Your task to perform on an android device: Open calendar and show me the fourth week of next month Image 0: 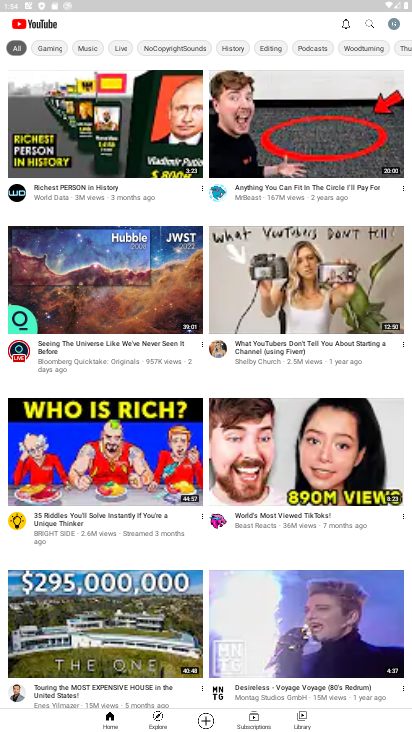
Step 0: press home button
Your task to perform on an android device: Open calendar and show me the fourth week of next month Image 1: 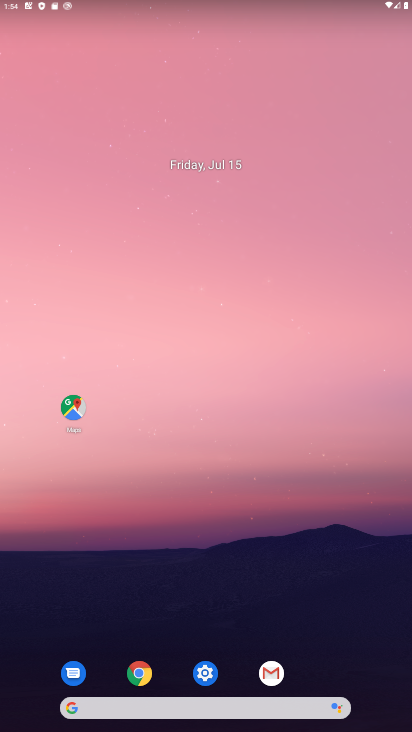
Step 1: drag from (202, 714) to (87, 277)
Your task to perform on an android device: Open calendar and show me the fourth week of next month Image 2: 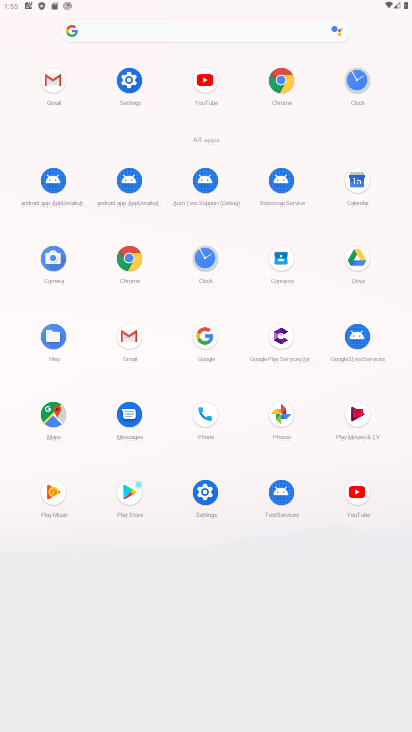
Step 2: click (362, 186)
Your task to perform on an android device: Open calendar and show me the fourth week of next month Image 3: 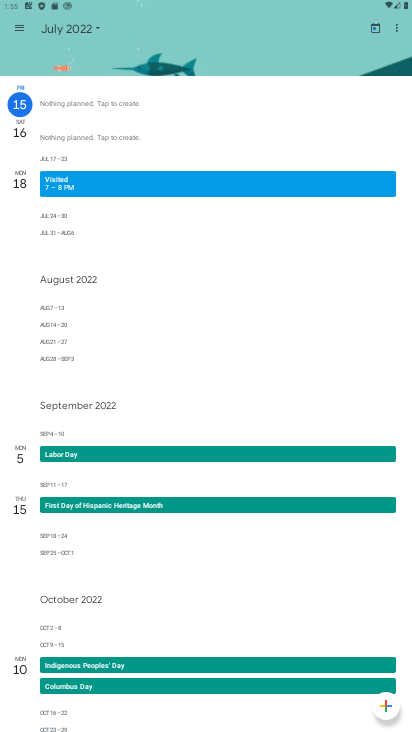
Step 3: click (13, 27)
Your task to perform on an android device: Open calendar and show me the fourth week of next month Image 4: 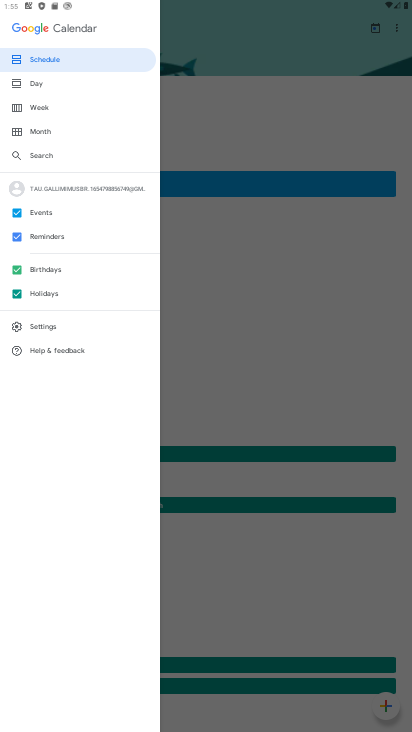
Step 4: click (39, 121)
Your task to perform on an android device: Open calendar and show me the fourth week of next month Image 5: 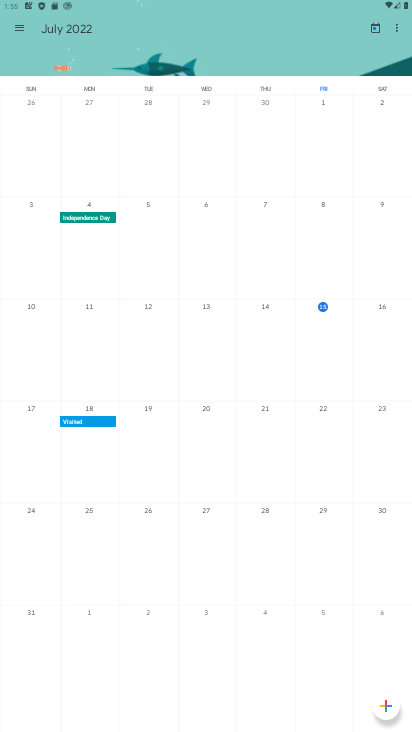
Step 5: drag from (348, 307) to (10, 327)
Your task to perform on an android device: Open calendar and show me the fourth week of next month Image 6: 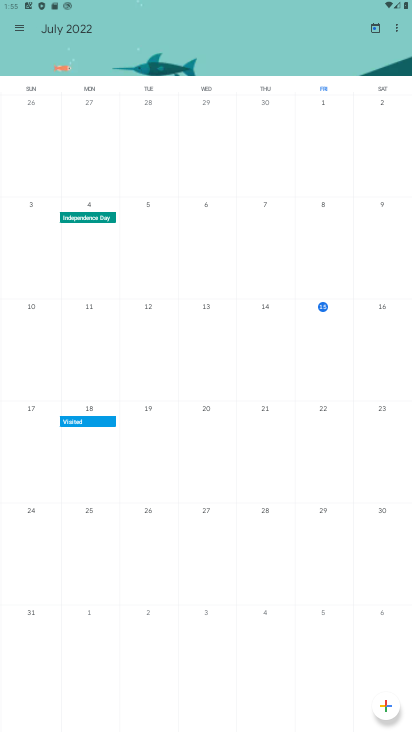
Step 6: drag from (386, 387) to (16, 380)
Your task to perform on an android device: Open calendar and show me the fourth week of next month Image 7: 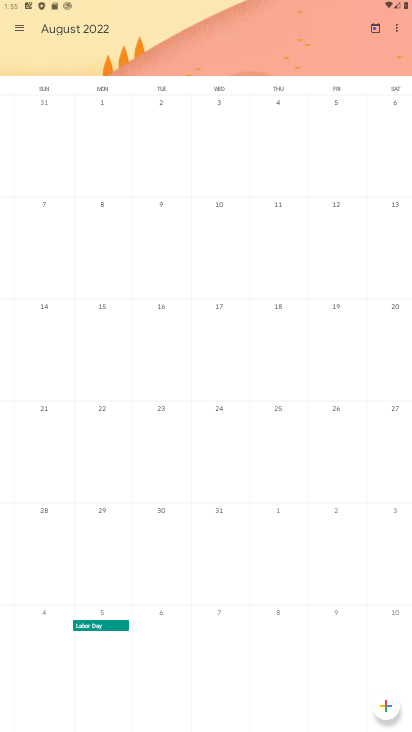
Step 7: drag from (324, 486) to (0, 426)
Your task to perform on an android device: Open calendar and show me the fourth week of next month Image 8: 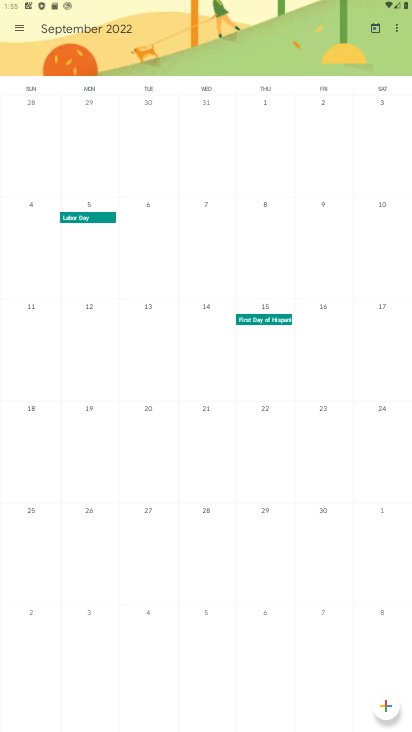
Step 8: click (86, 406)
Your task to perform on an android device: Open calendar and show me the fourth week of next month Image 9: 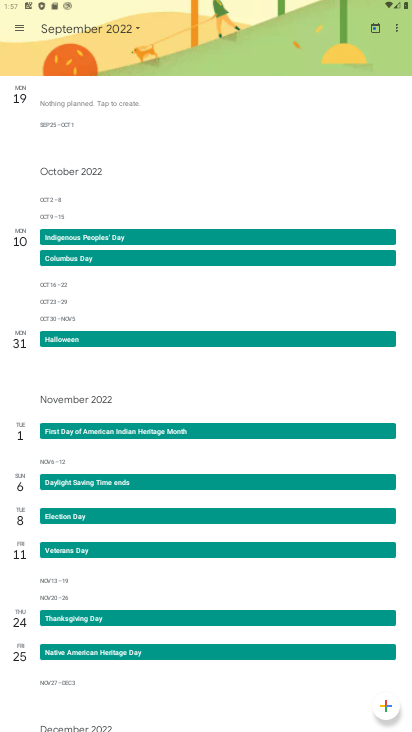
Step 9: task complete